Your task to perform on an android device: Open the stopwatch Image 0: 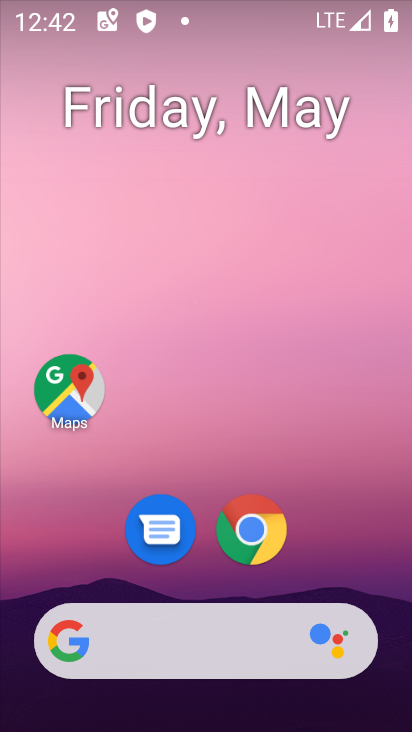
Step 0: drag from (301, 556) to (143, 223)
Your task to perform on an android device: Open the stopwatch Image 1: 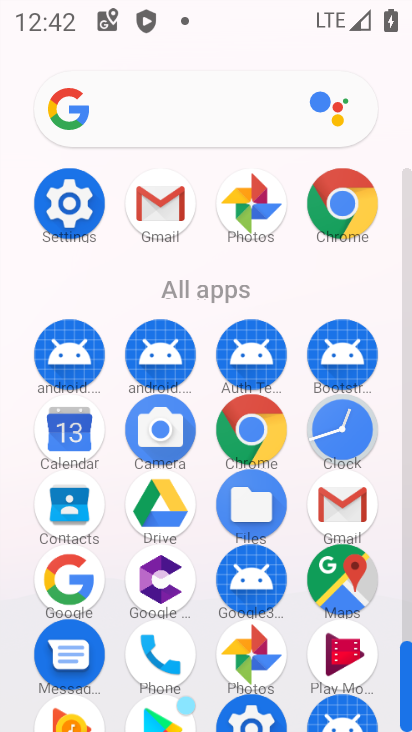
Step 1: click (355, 443)
Your task to perform on an android device: Open the stopwatch Image 2: 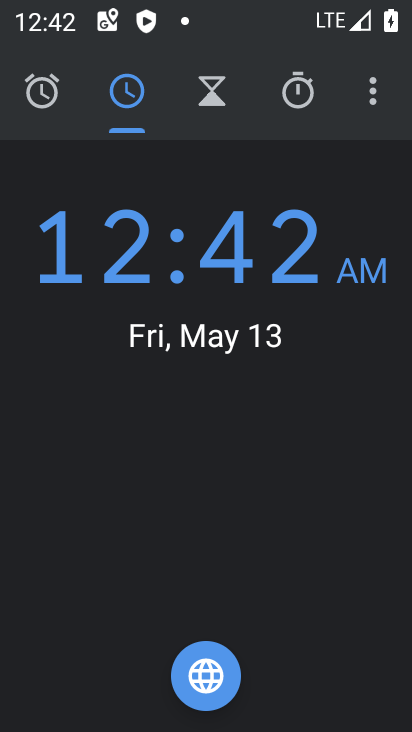
Step 2: click (310, 98)
Your task to perform on an android device: Open the stopwatch Image 3: 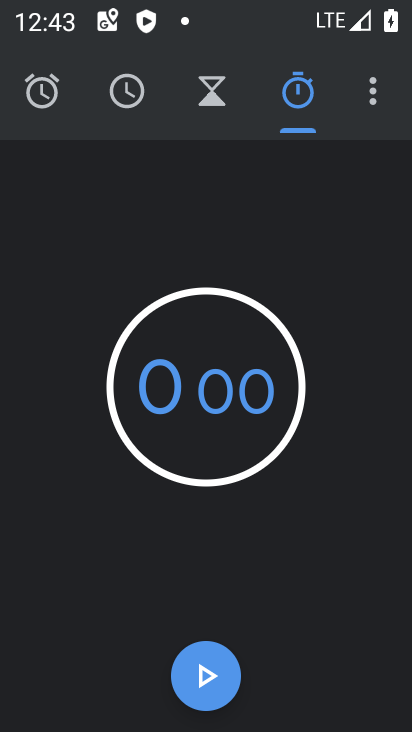
Step 3: task complete